Your task to perform on an android device: open a bookmark in the chrome app Image 0: 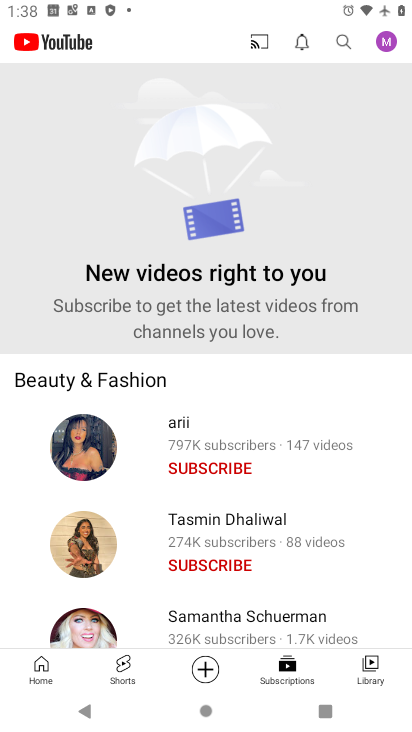
Step 0: press home button
Your task to perform on an android device: open a bookmark in the chrome app Image 1: 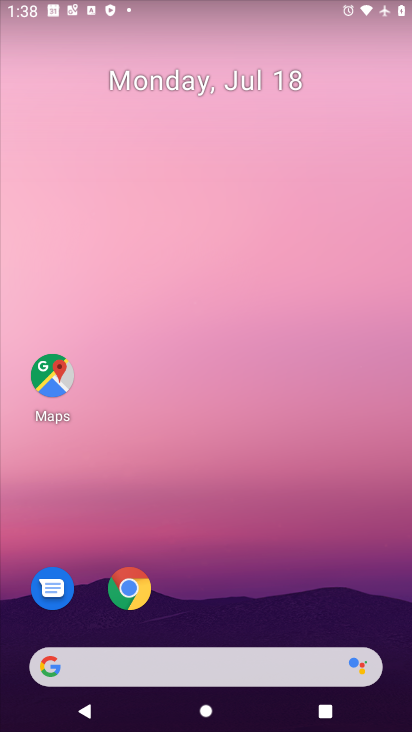
Step 1: drag from (216, 633) to (238, 205)
Your task to perform on an android device: open a bookmark in the chrome app Image 2: 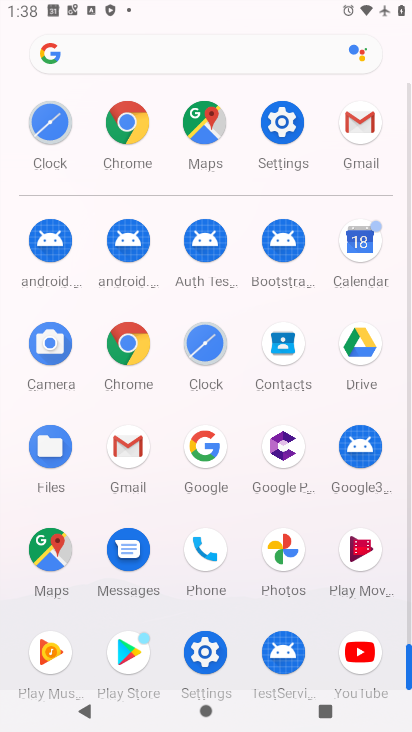
Step 2: drag from (217, 376) to (220, 310)
Your task to perform on an android device: open a bookmark in the chrome app Image 3: 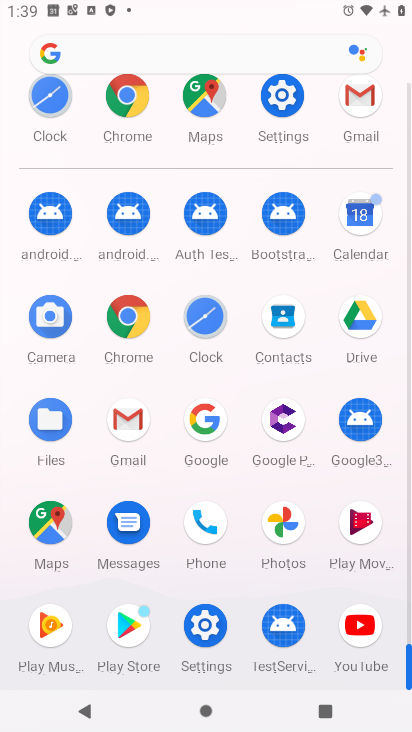
Step 3: click (135, 319)
Your task to perform on an android device: open a bookmark in the chrome app Image 4: 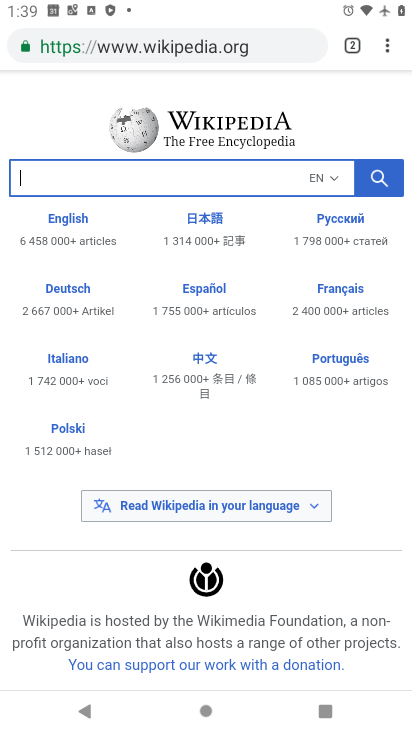
Step 4: click (390, 51)
Your task to perform on an android device: open a bookmark in the chrome app Image 5: 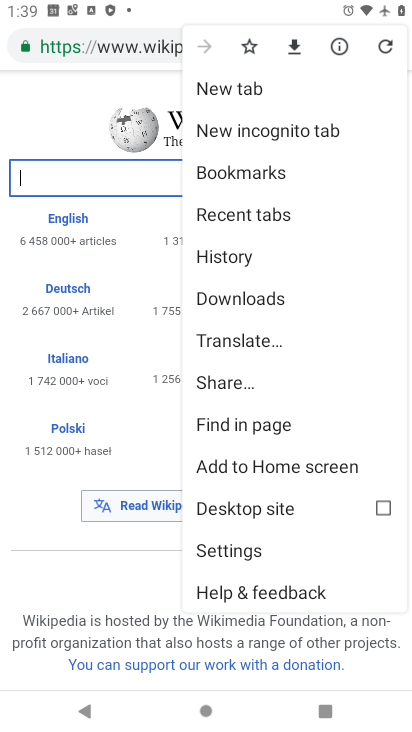
Step 5: click (251, 175)
Your task to perform on an android device: open a bookmark in the chrome app Image 6: 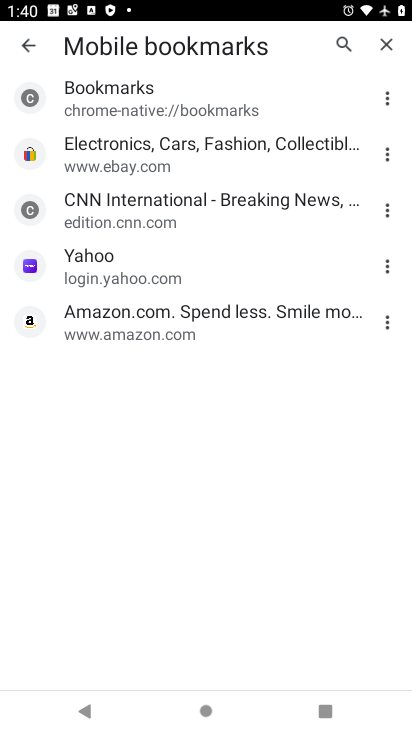
Step 6: click (258, 217)
Your task to perform on an android device: open a bookmark in the chrome app Image 7: 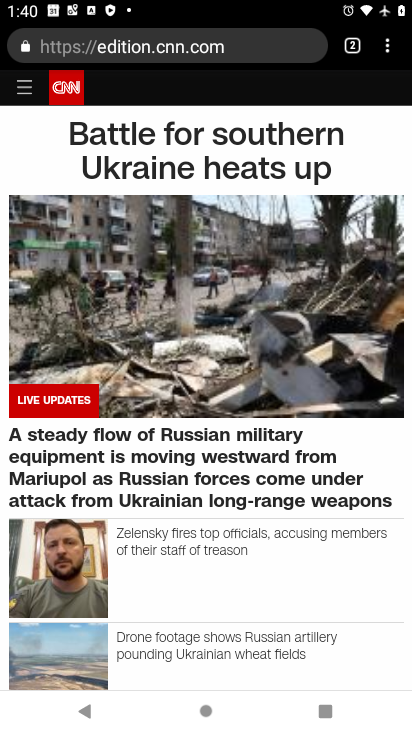
Step 7: task complete